Your task to perform on an android device: Open Android settings Image 0: 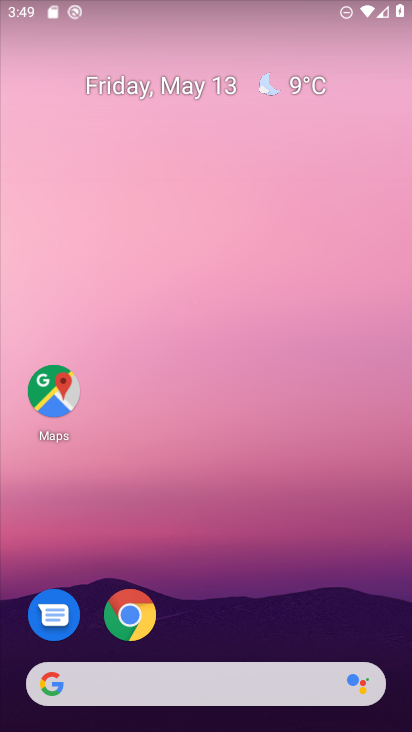
Step 0: drag from (198, 539) to (287, 95)
Your task to perform on an android device: Open Android settings Image 1: 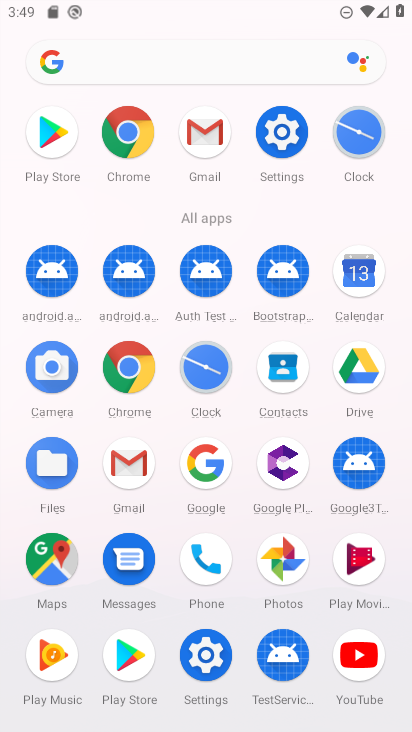
Step 1: click (286, 127)
Your task to perform on an android device: Open Android settings Image 2: 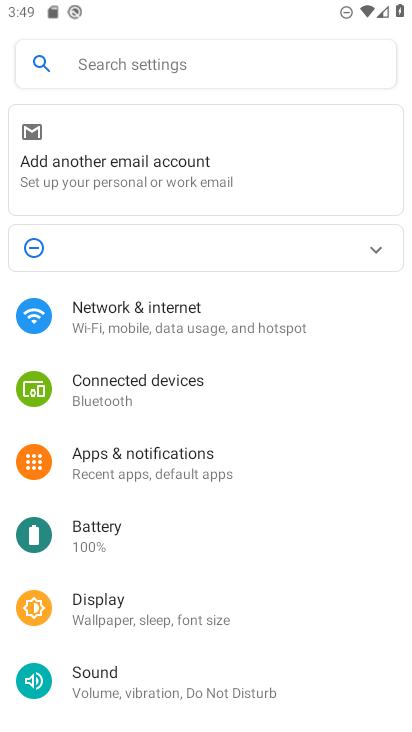
Step 2: drag from (133, 648) to (295, 22)
Your task to perform on an android device: Open Android settings Image 3: 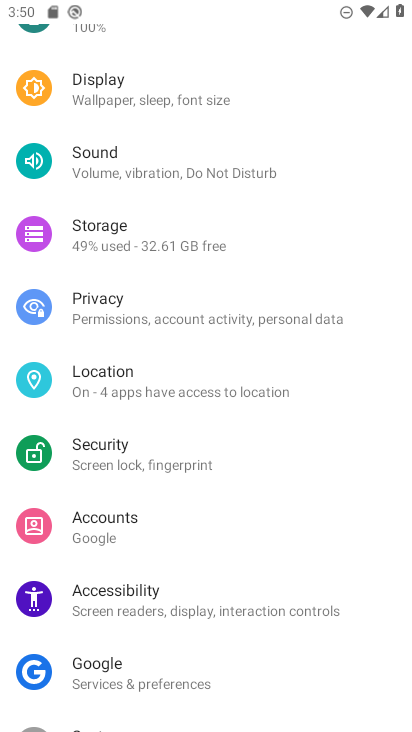
Step 3: drag from (153, 640) to (318, 14)
Your task to perform on an android device: Open Android settings Image 4: 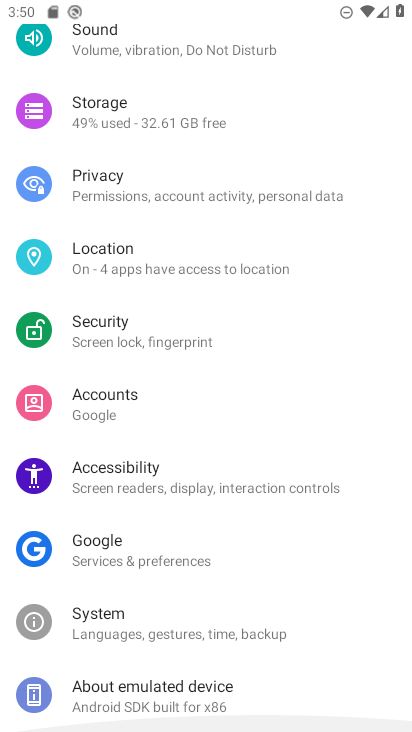
Step 4: drag from (164, 630) to (246, 174)
Your task to perform on an android device: Open Android settings Image 5: 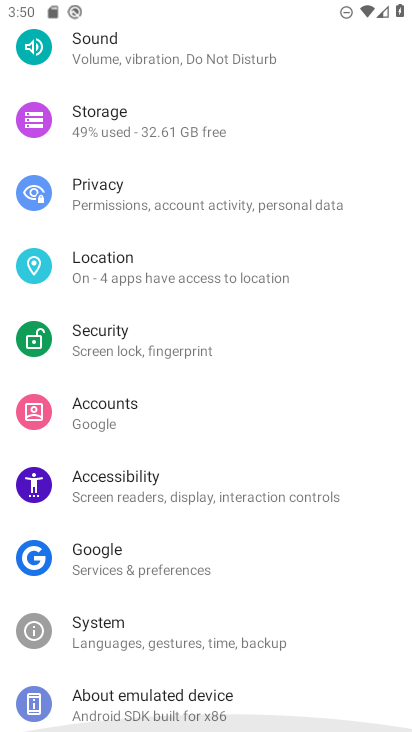
Step 5: click (151, 705)
Your task to perform on an android device: Open Android settings Image 6: 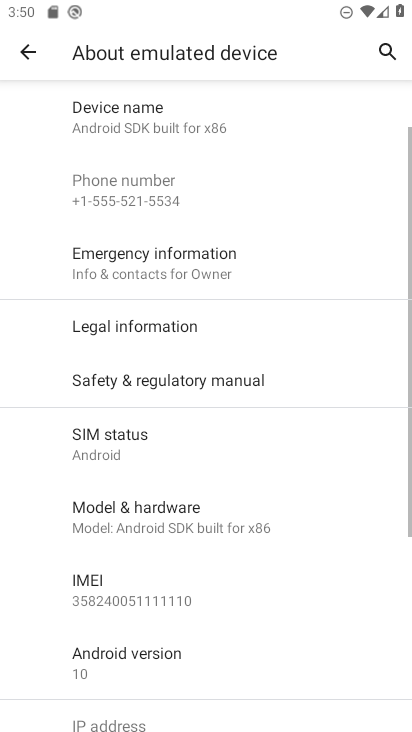
Step 6: click (119, 658)
Your task to perform on an android device: Open Android settings Image 7: 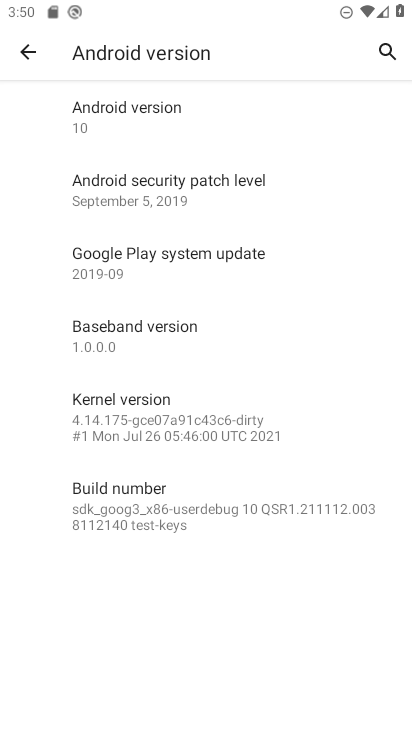
Step 7: click (100, 119)
Your task to perform on an android device: Open Android settings Image 8: 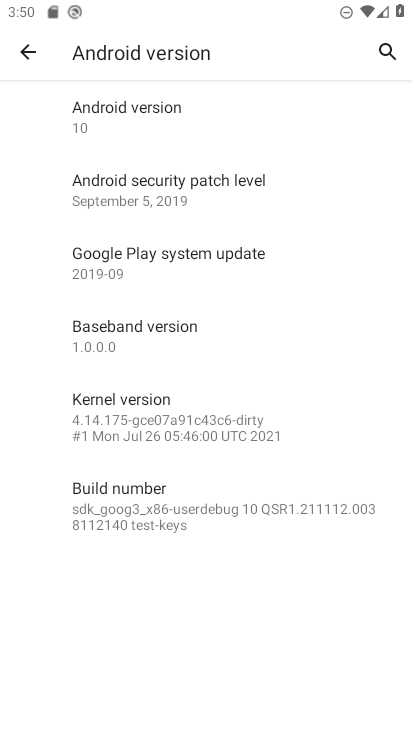
Step 8: task complete